Your task to perform on an android device: toggle sleep mode Image 0: 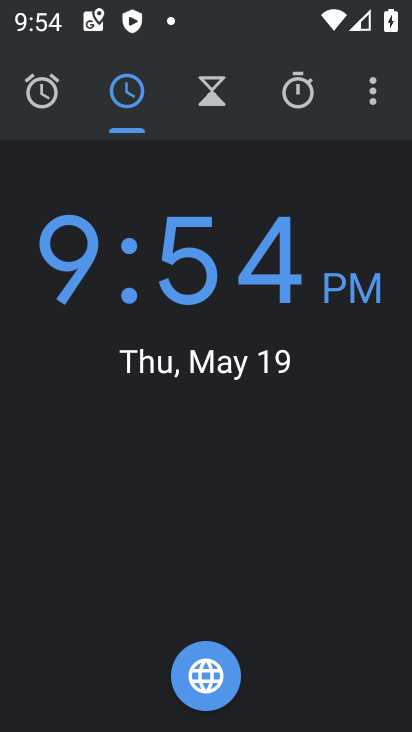
Step 0: press home button
Your task to perform on an android device: toggle sleep mode Image 1: 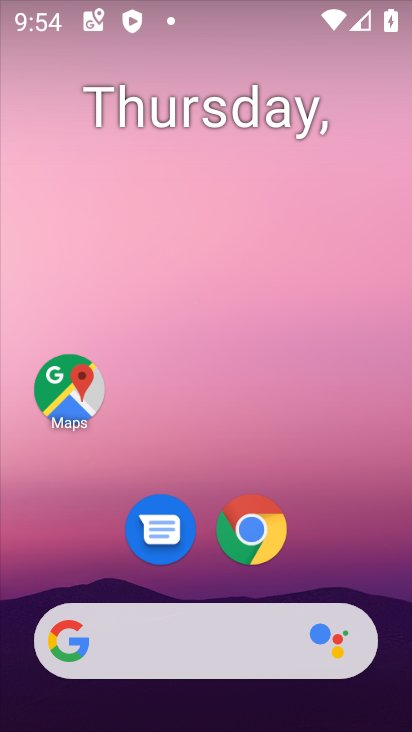
Step 1: drag from (291, 564) to (226, 29)
Your task to perform on an android device: toggle sleep mode Image 2: 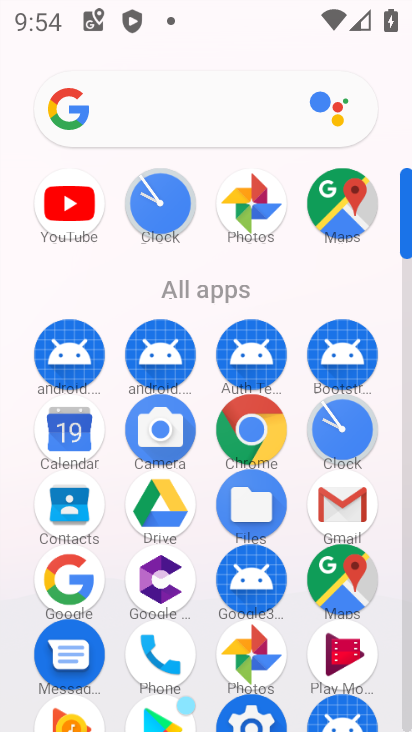
Step 2: drag from (285, 506) to (257, 267)
Your task to perform on an android device: toggle sleep mode Image 3: 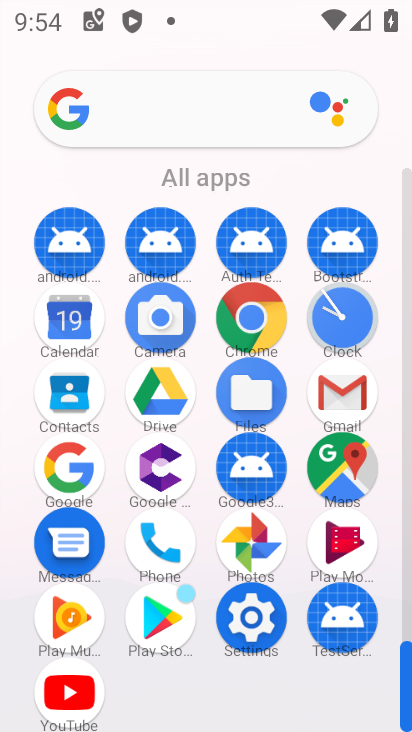
Step 3: click (234, 631)
Your task to perform on an android device: toggle sleep mode Image 4: 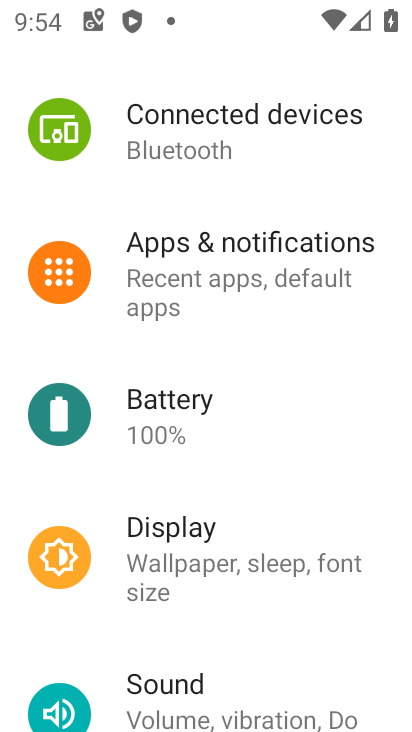
Step 4: task complete